Your task to perform on an android device: toggle notifications settings in the gmail app Image 0: 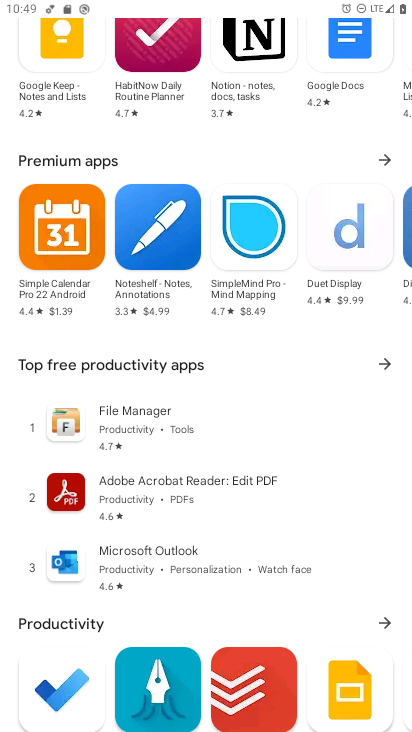
Step 0: press home button
Your task to perform on an android device: toggle notifications settings in the gmail app Image 1: 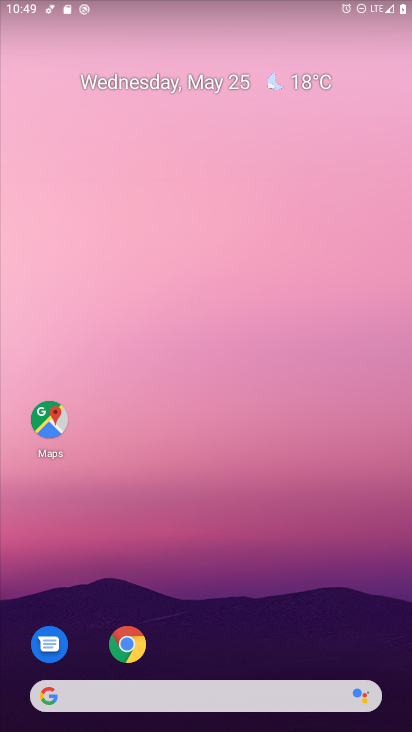
Step 1: drag from (196, 653) to (276, 13)
Your task to perform on an android device: toggle notifications settings in the gmail app Image 2: 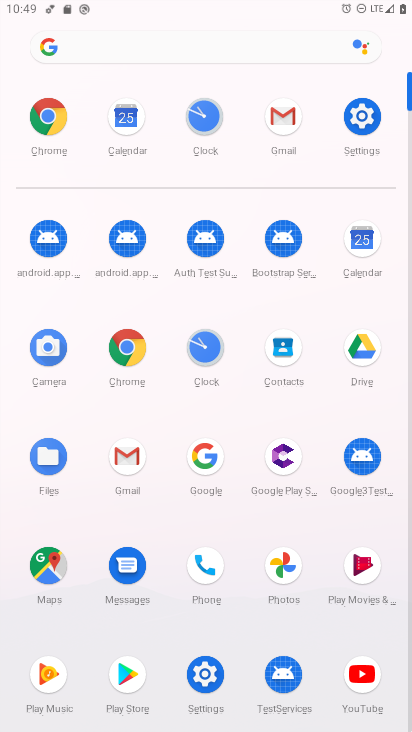
Step 2: click (279, 109)
Your task to perform on an android device: toggle notifications settings in the gmail app Image 3: 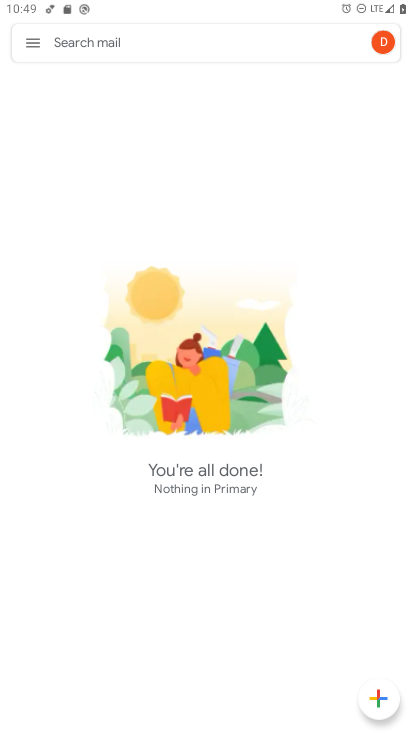
Step 3: click (26, 37)
Your task to perform on an android device: toggle notifications settings in the gmail app Image 4: 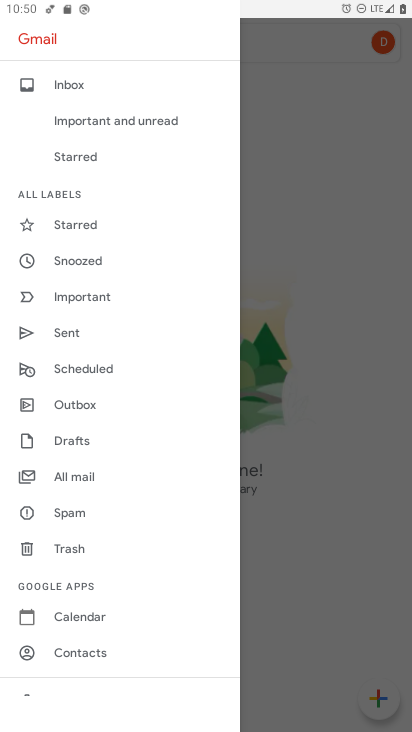
Step 4: drag from (116, 624) to (150, 164)
Your task to perform on an android device: toggle notifications settings in the gmail app Image 5: 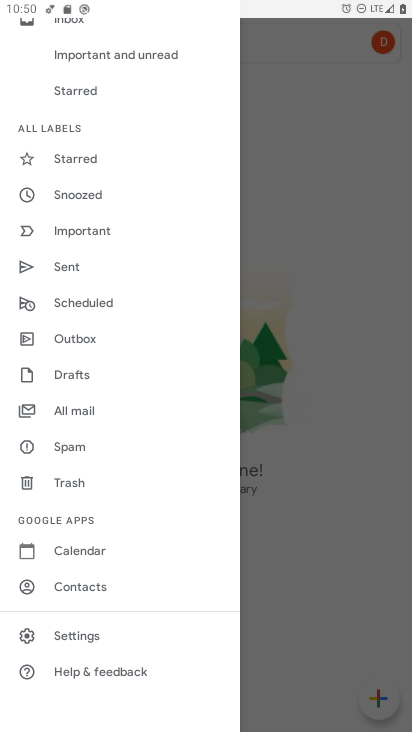
Step 5: click (102, 628)
Your task to perform on an android device: toggle notifications settings in the gmail app Image 6: 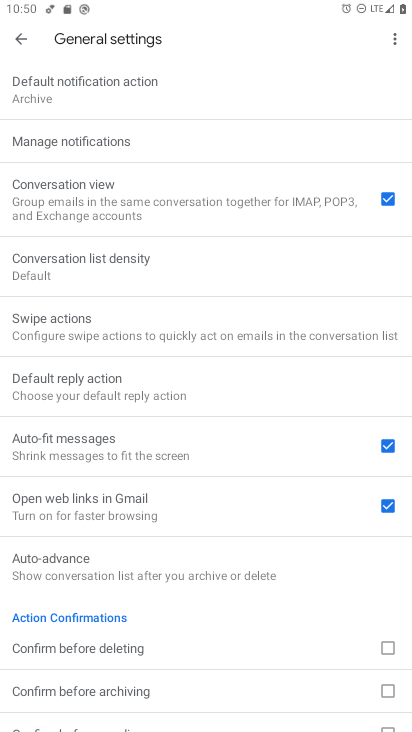
Step 6: click (138, 132)
Your task to perform on an android device: toggle notifications settings in the gmail app Image 7: 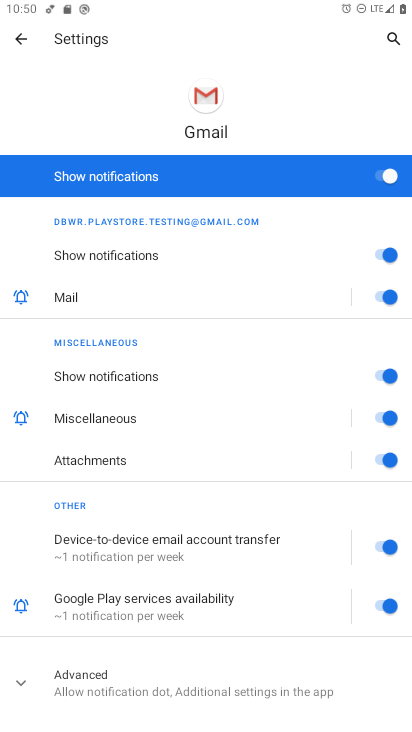
Step 7: click (379, 171)
Your task to perform on an android device: toggle notifications settings in the gmail app Image 8: 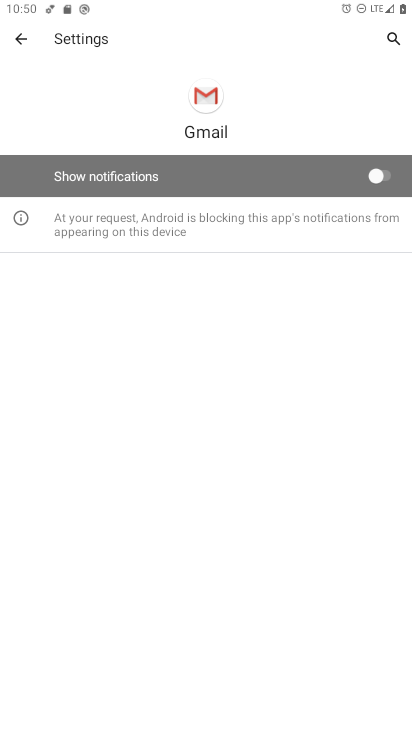
Step 8: task complete